Your task to perform on an android device: uninstall "Google Translate" Image 0: 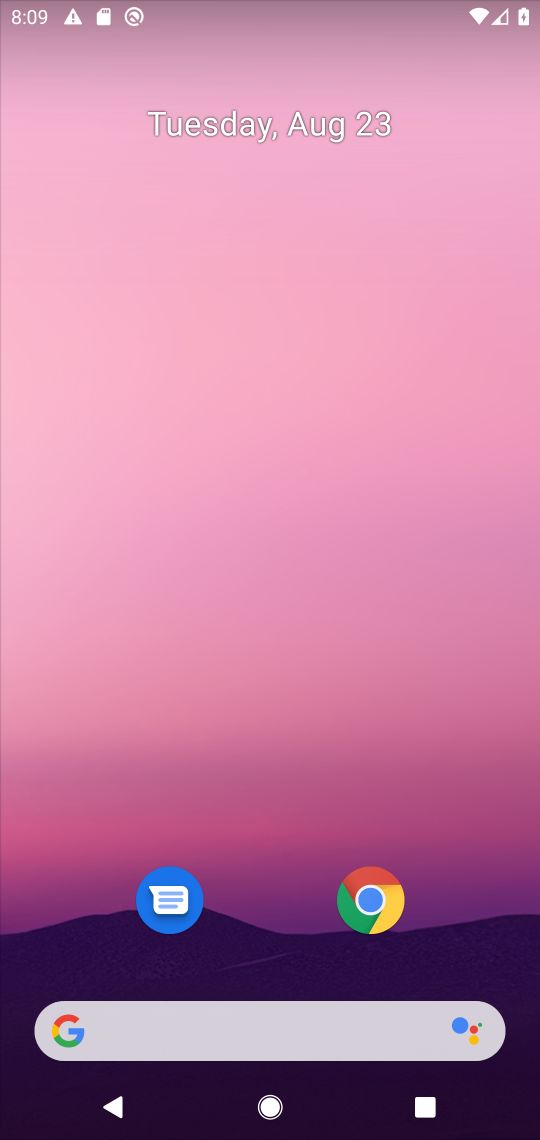
Step 0: drag from (260, 994) to (305, 375)
Your task to perform on an android device: uninstall "Google Translate" Image 1: 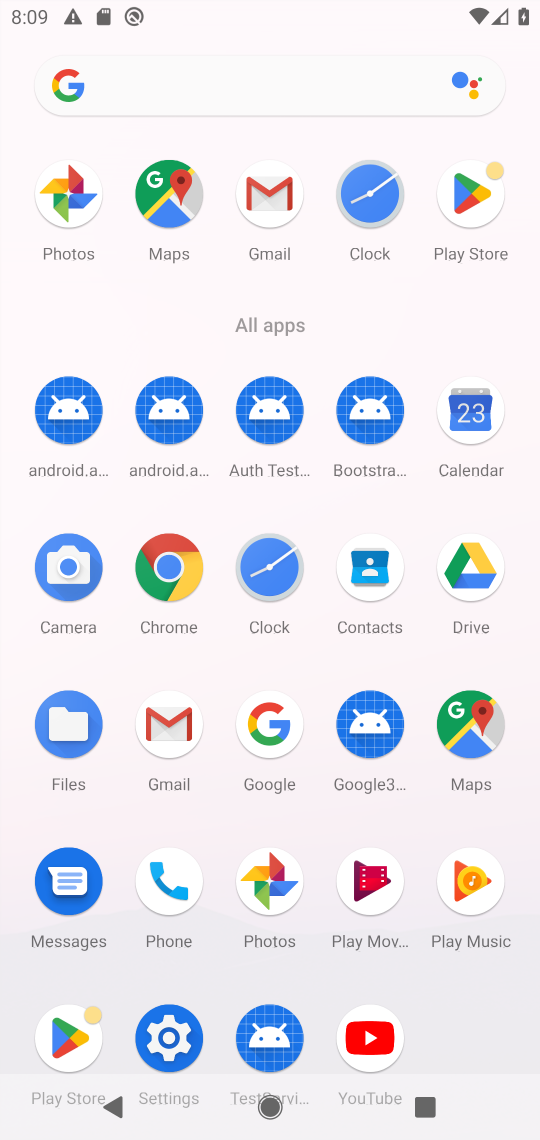
Step 1: click (465, 189)
Your task to perform on an android device: uninstall "Google Translate" Image 2: 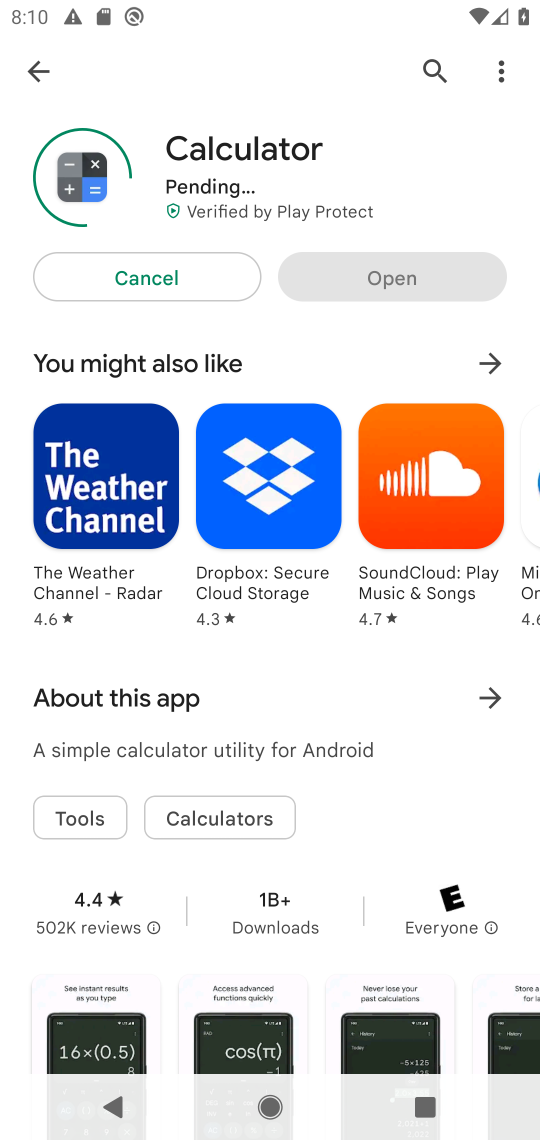
Step 2: type "Google Translate"
Your task to perform on an android device: uninstall "Google Translate" Image 3: 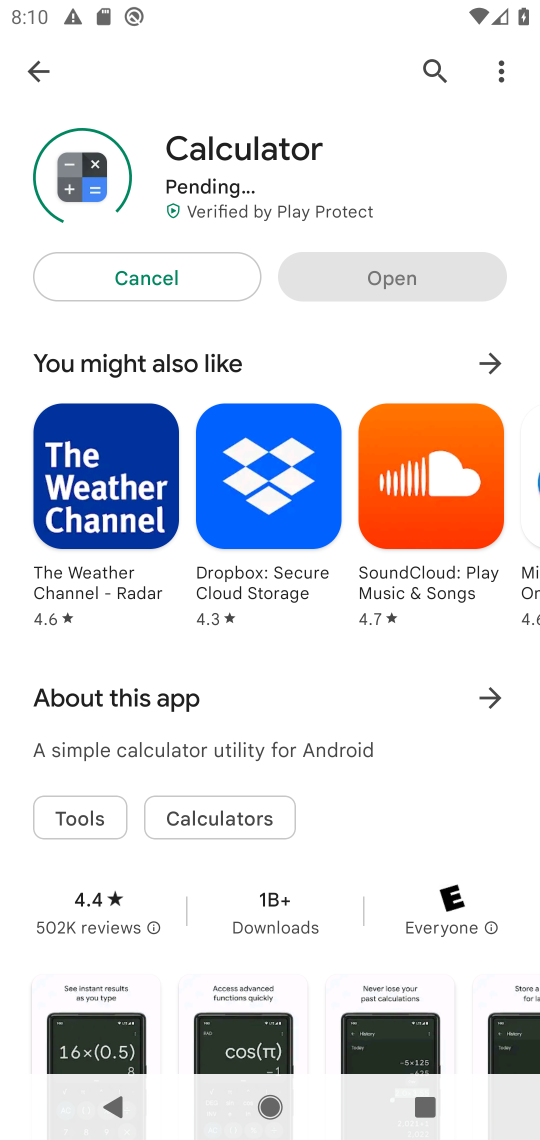
Step 3: click (427, 65)
Your task to perform on an android device: uninstall "Google Translate" Image 4: 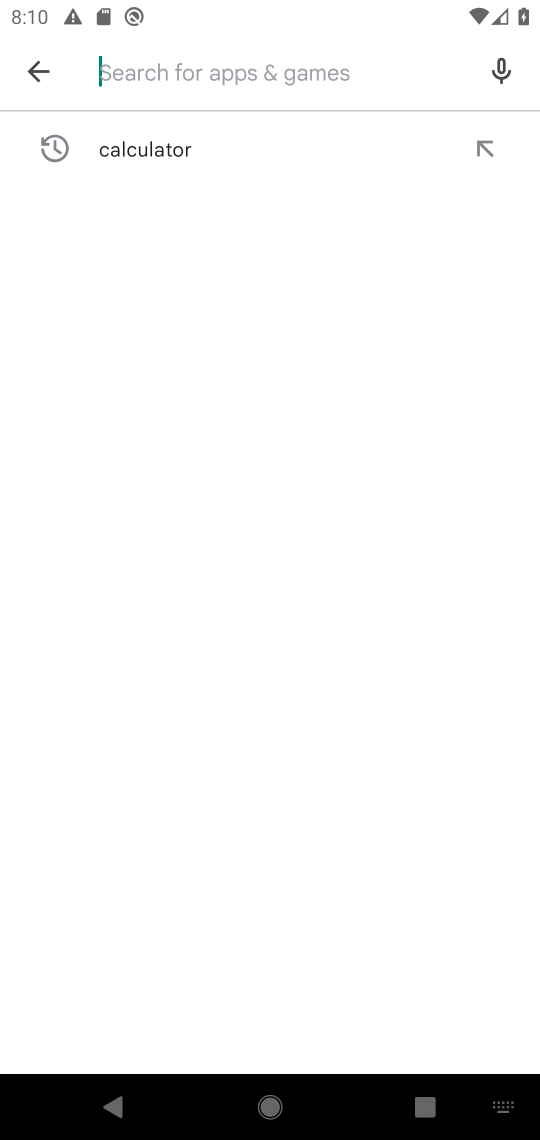
Step 4: type "Google Translate"
Your task to perform on an android device: uninstall "Google Translate" Image 5: 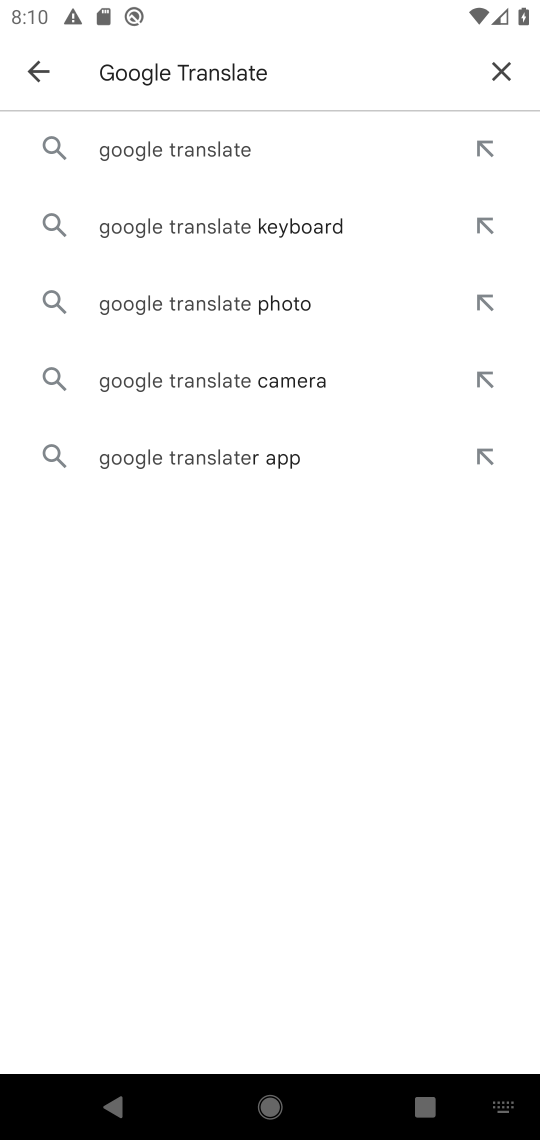
Step 5: click (209, 157)
Your task to perform on an android device: uninstall "Google Translate" Image 6: 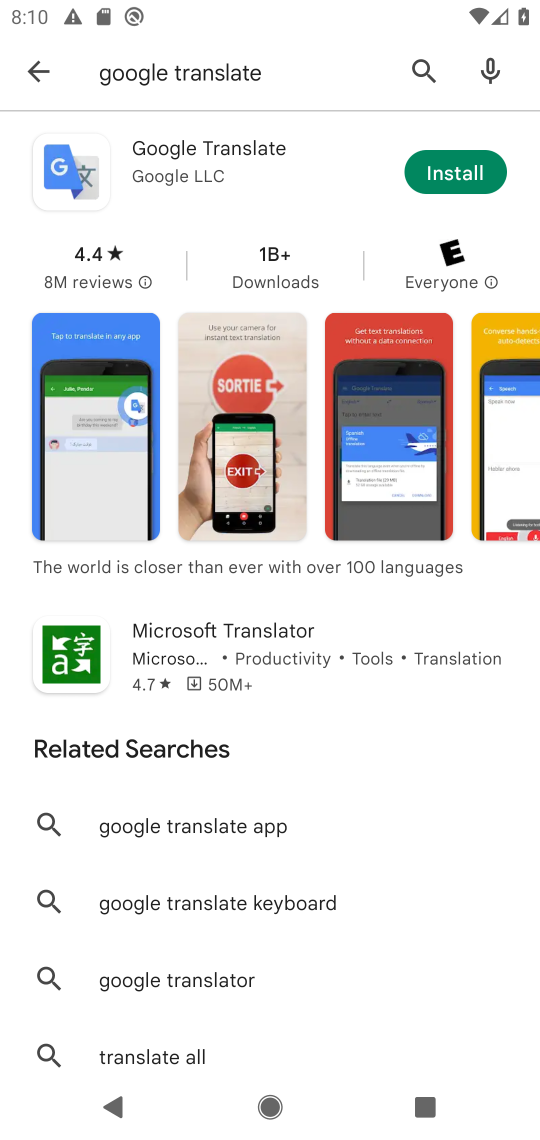
Step 6: task complete